Your task to perform on an android device: turn off wifi Image 0: 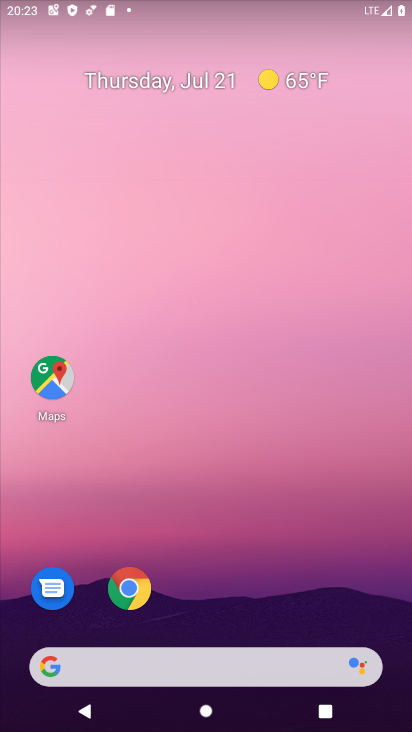
Step 0: drag from (221, 613) to (182, 106)
Your task to perform on an android device: turn off wifi Image 1: 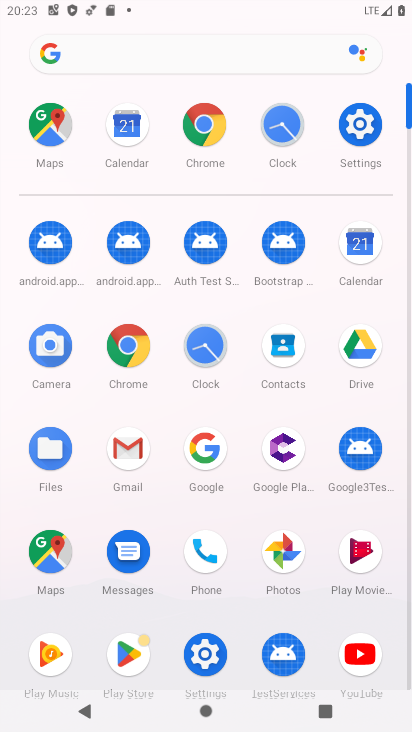
Step 1: click (342, 129)
Your task to perform on an android device: turn off wifi Image 2: 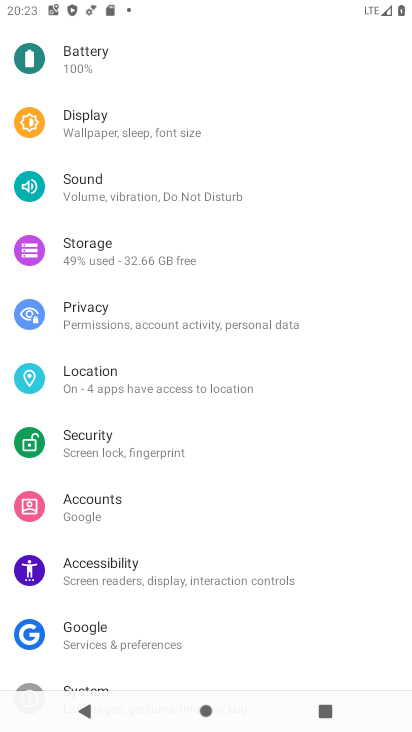
Step 2: drag from (101, 106) to (109, 660)
Your task to perform on an android device: turn off wifi Image 3: 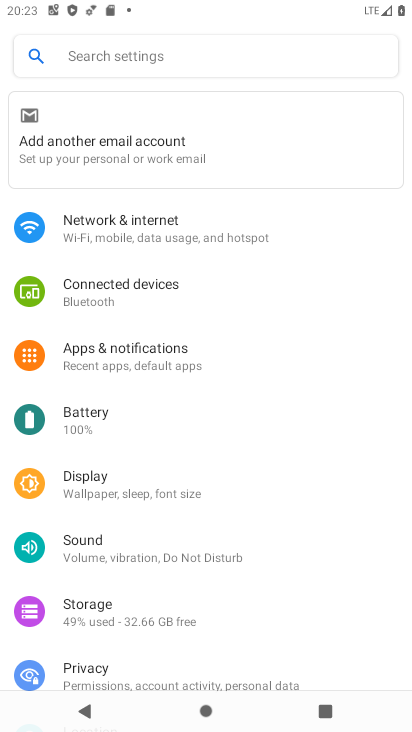
Step 3: click (100, 218)
Your task to perform on an android device: turn off wifi Image 4: 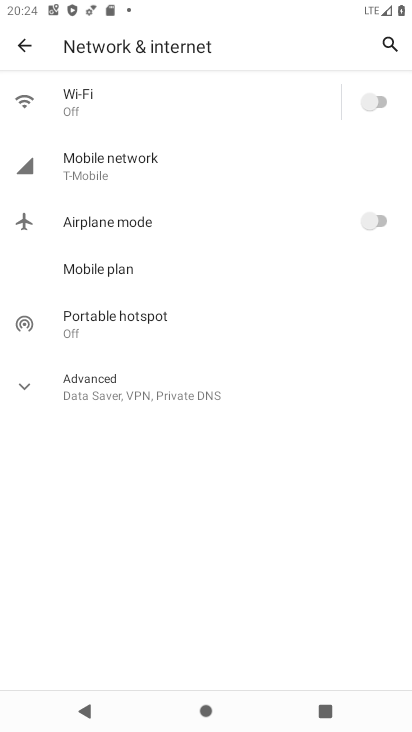
Step 4: task complete